Your task to perform on an android device: allow cookies in the chrome app Image 0: 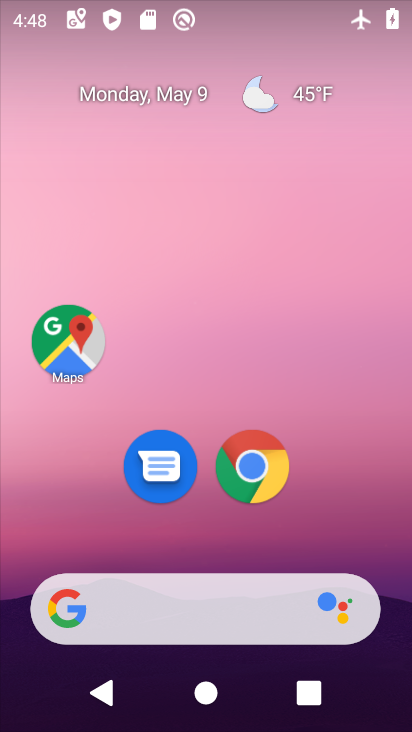
Step 0: drag from (362, 535) to (272, 6)
Your task to perform on an android device: allow cookies in the chrome app Image 1: 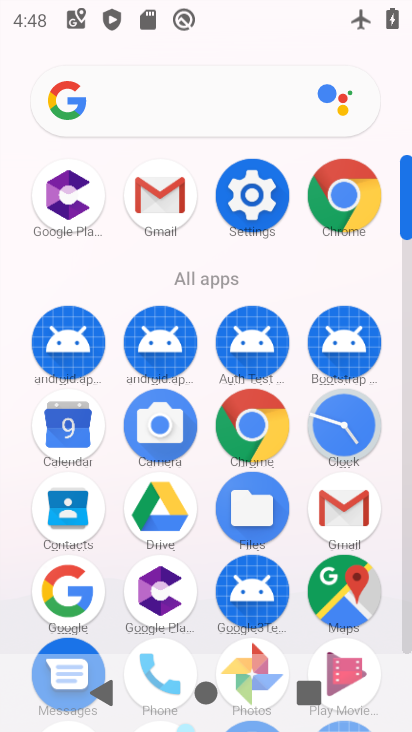
Step 1: click (243, 418)
Your task to perform on an android device: allow cookies in the chrome app Image 2: 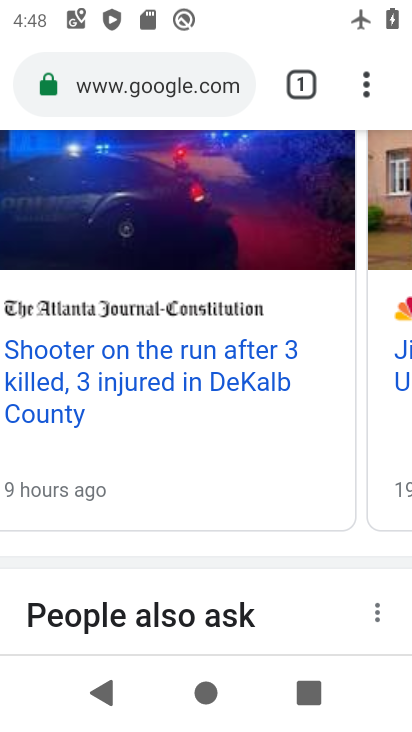
Step 2: drag from (368, 84) to (81, 517)
Your task to perform on an android device: allow cookies in the chrome app Image 3: 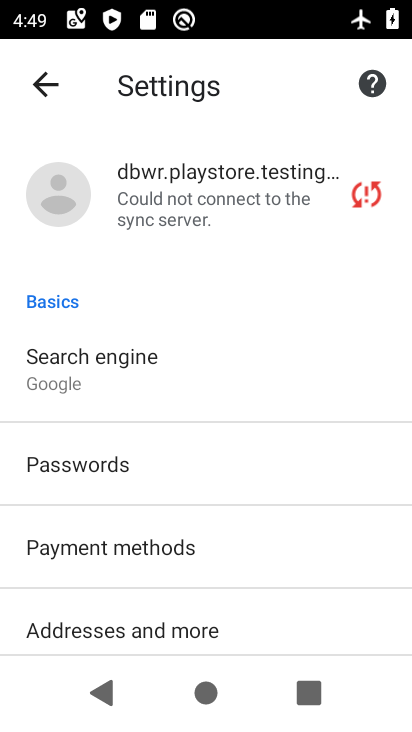
Step 3: drag from (222, 546) to (226, 239)
Your task to perform on an android device: allow cookies in the chrome app Image 4: 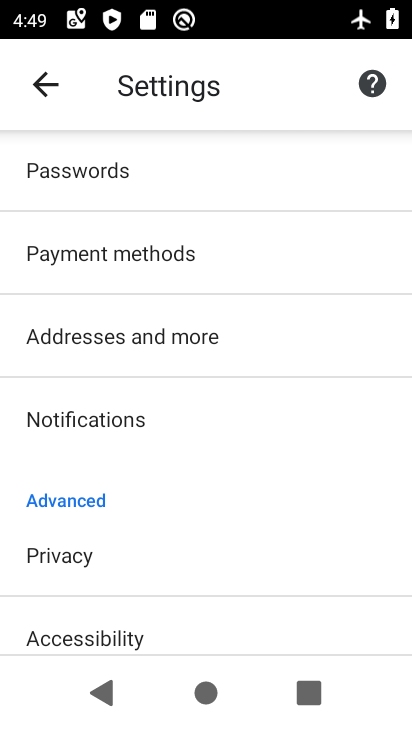
Step 4: drag from (186, 545) to (226, 157)
Your task to perform on an android device: allow cookies in the chrome app Image 5: 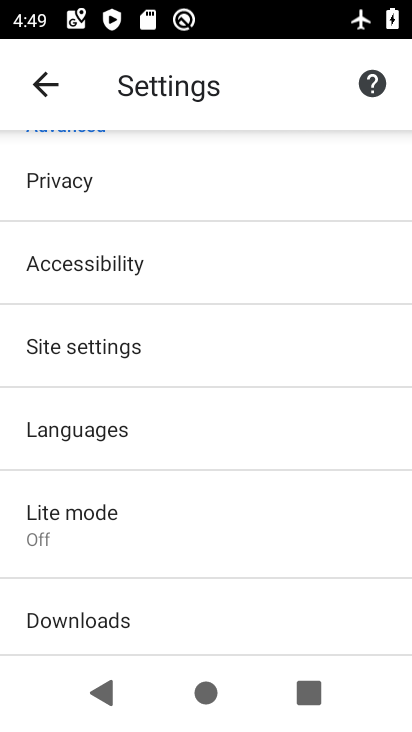
Step 5: click (137, 345)
Your task to perform on an android device: allow cookies in the chrome app Image 6: 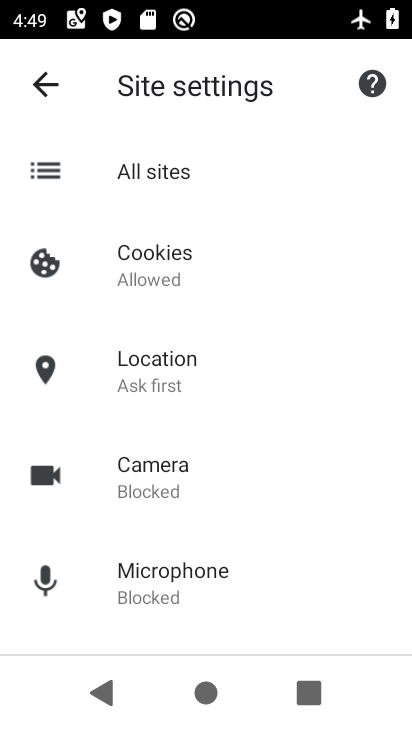
Step 6: click (205, 272)
Your task to perform on an android device: allow cookies in the chrome app Image 7: 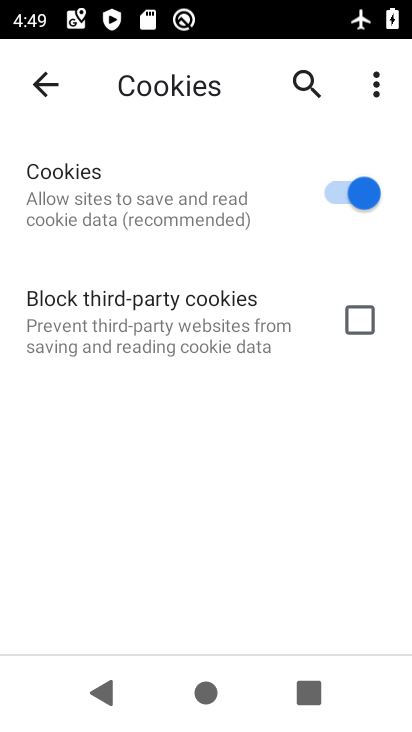
Step 7: task complete